Your task to perform on an android device: turn on the 24-hour format for clock Image 0: 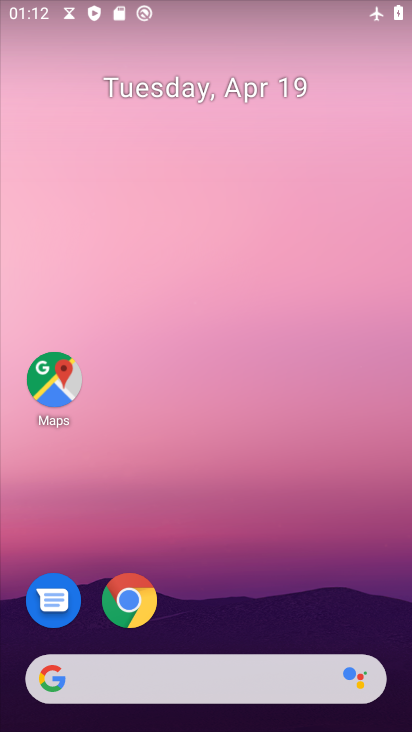
Step 0: drag from (190, 646) to (169, 102)
Your task to perform on an android device: turn on the 24-hour format for clock Image 1: 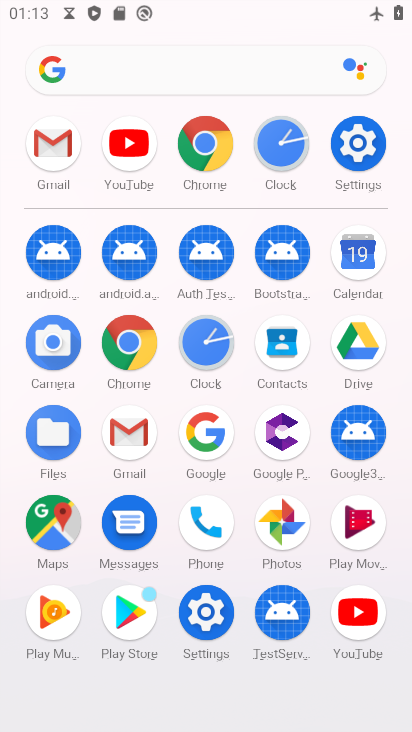
Step 1: click (270, 141)
Your task to perform on an android device: turn on the 24-hour format for clock Image 2: 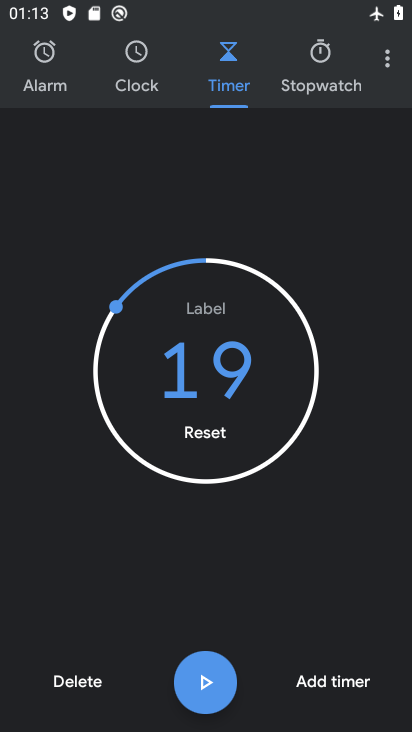
Step 2: click (387, 71)
Your task to perform on an android device: turn on the 24-hour format for clock Image 3: 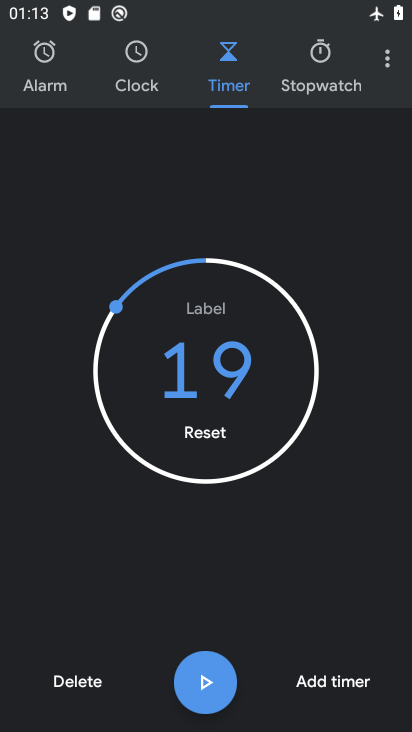
Step 3: click (387, 71)
Your task to perform on an android device: turn on the 24-hour format for clock Image 4: 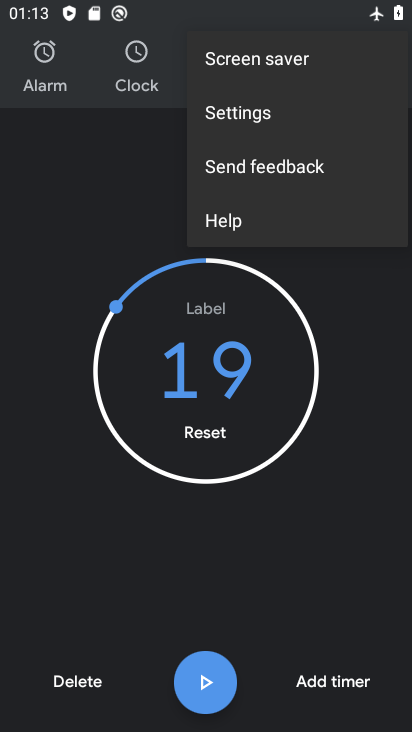
Step 4: click (323, 101)
Your task to perform on an android device: turn on the 24-hour format for clock Image 5: 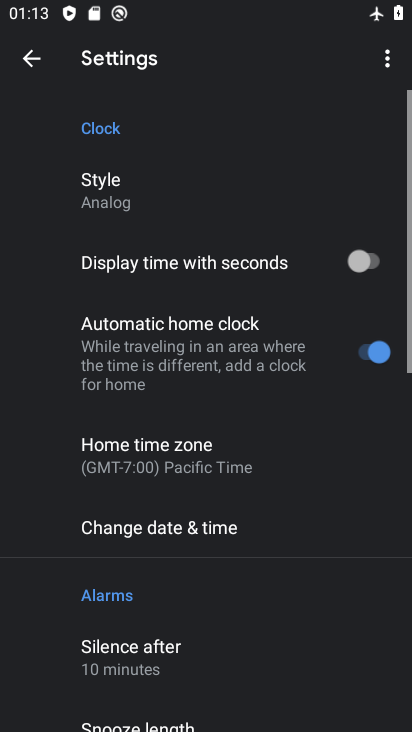
Step 5: drag from (217, 515) to (200, 62)
Your task to perform on an android device: turn on the 24-hour format for clock Image 6: 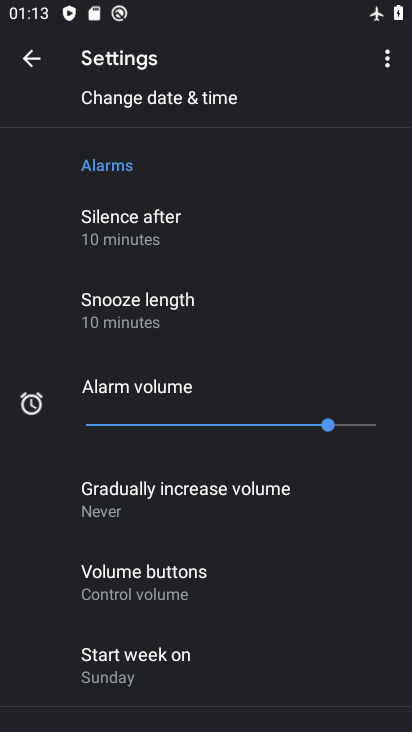
Step 6: click (155, 118)
Your task to perform on an android device: turn on the 24-hour format for clock Image 7: 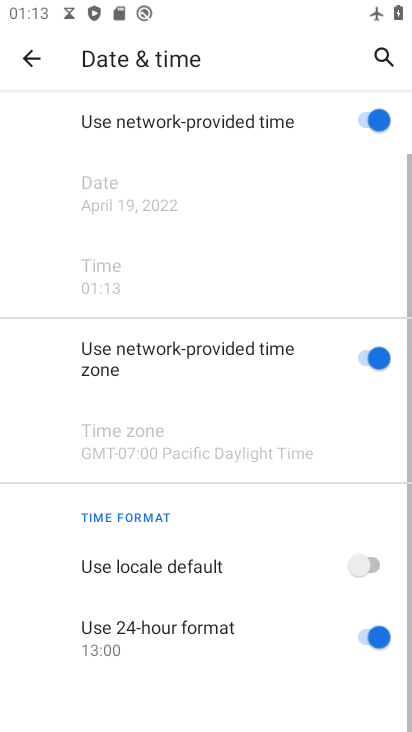
Step 7: task complete